Your task to perform on an android device: Do I have any events tomorrow? Image 0: 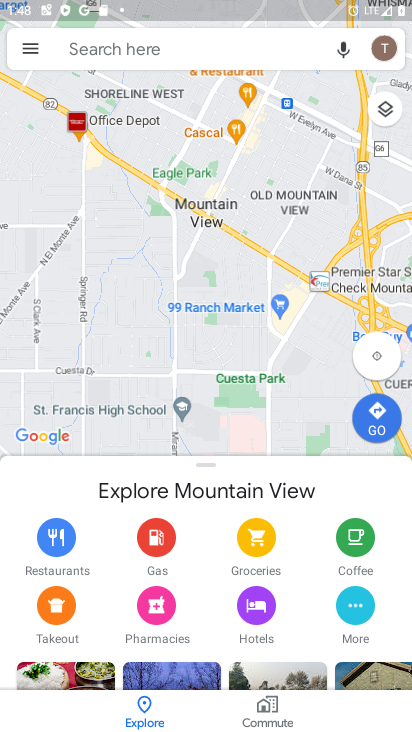
Step 0: press home button
Your task to perform on an android device: Do I have any events tomorrow? Image 1: 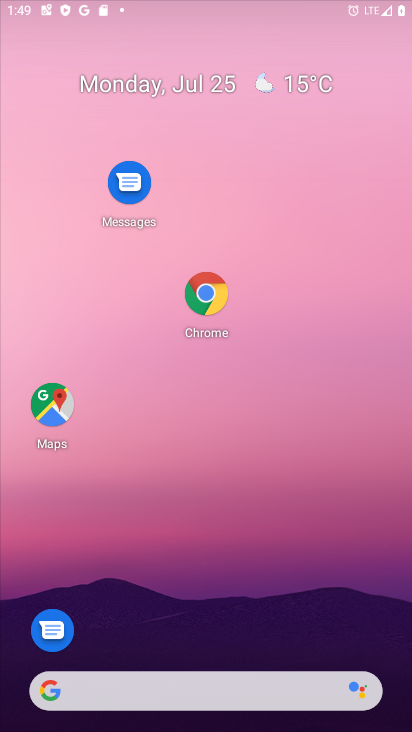
Step 1: drag from (288, 565) to (362, 0)
Your task to perform on an android device: Do I have any events tomorrow? Image 2: 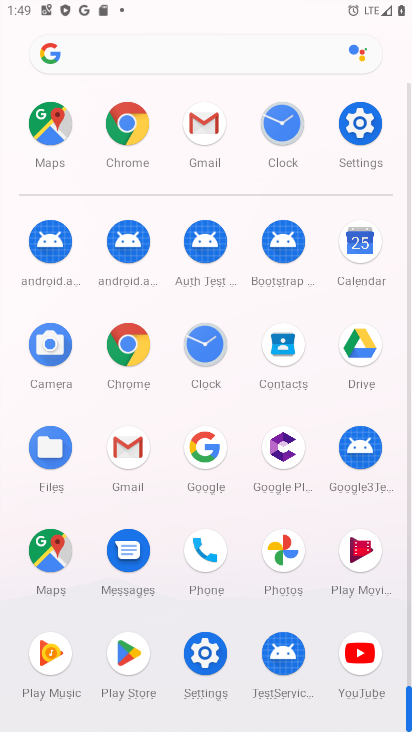
Step 2: click (354, 229)
Your task to perform on an android device: Do I have any events tomorrow? Image 3: 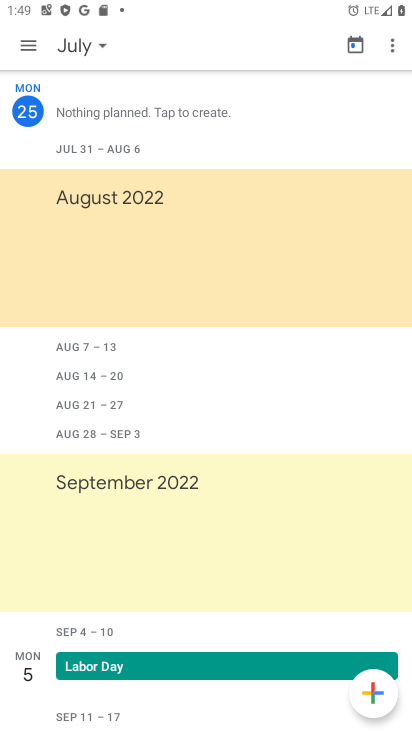
Step 3: click (94, 47)
Your task to perform on an android device: Do I have any events tomorrow? Image 4: 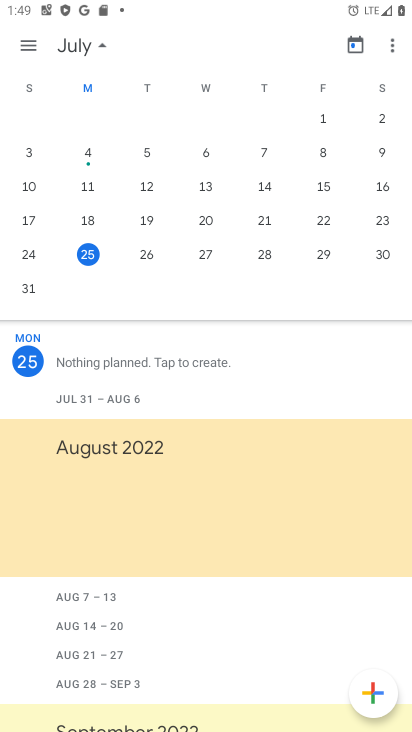
Step 4: click (152, 251)
Your task to perform on an android device: Do I have any events tomorrow? Image 5: 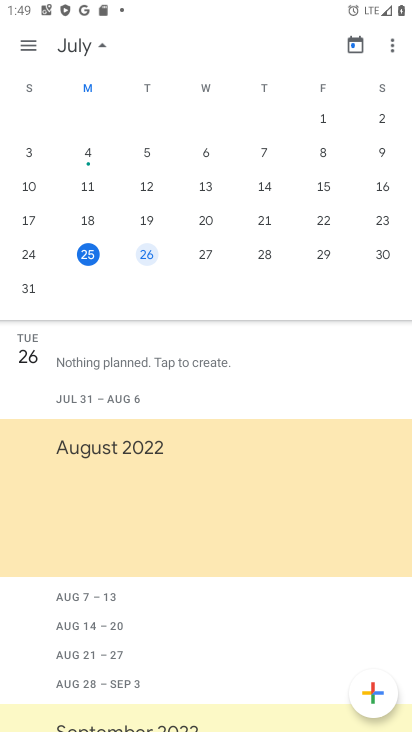
Step 5: task complete